Your task to perform on an android device: What's on the menu at McDonalds? Image 0: 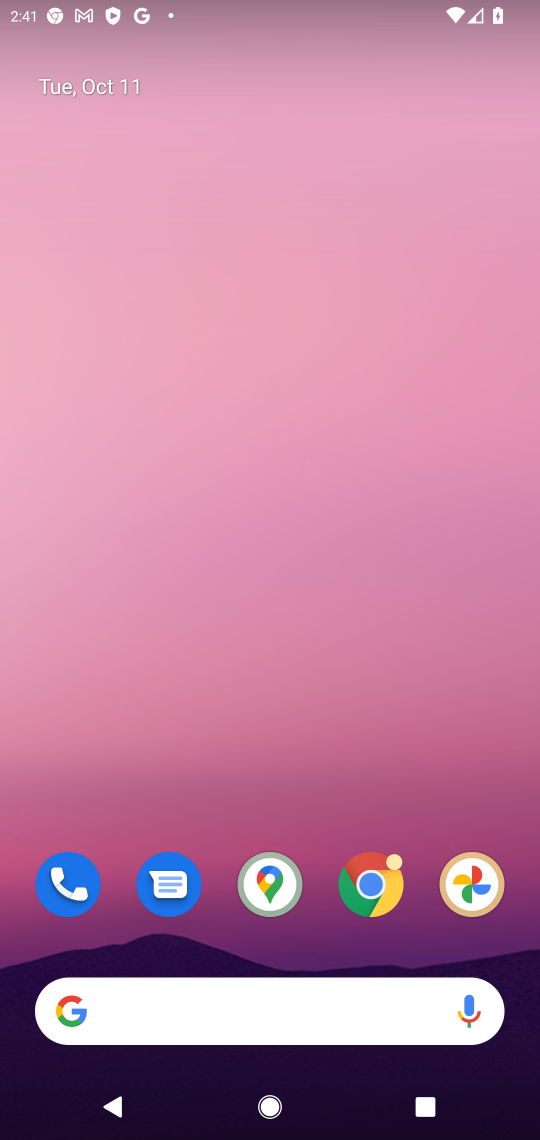
Step 0: click (374, 887)
Your task to perform on an android device: What's on the menu at McDonalds? Image 1: 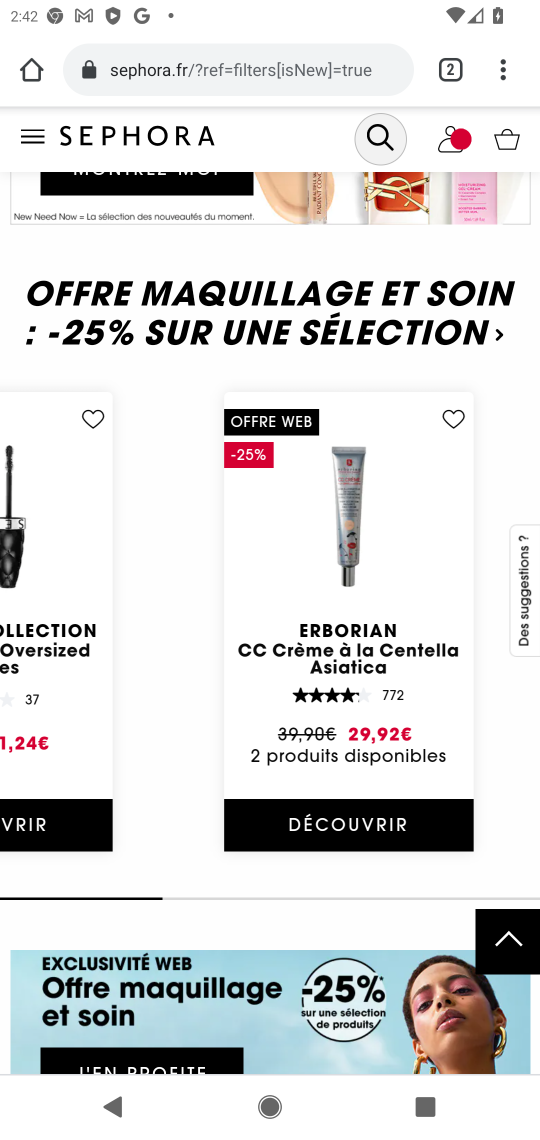
Step 1: click (295, 77)
Your task to perform on an android device: What's on the menu at McDonalds? Image 2: 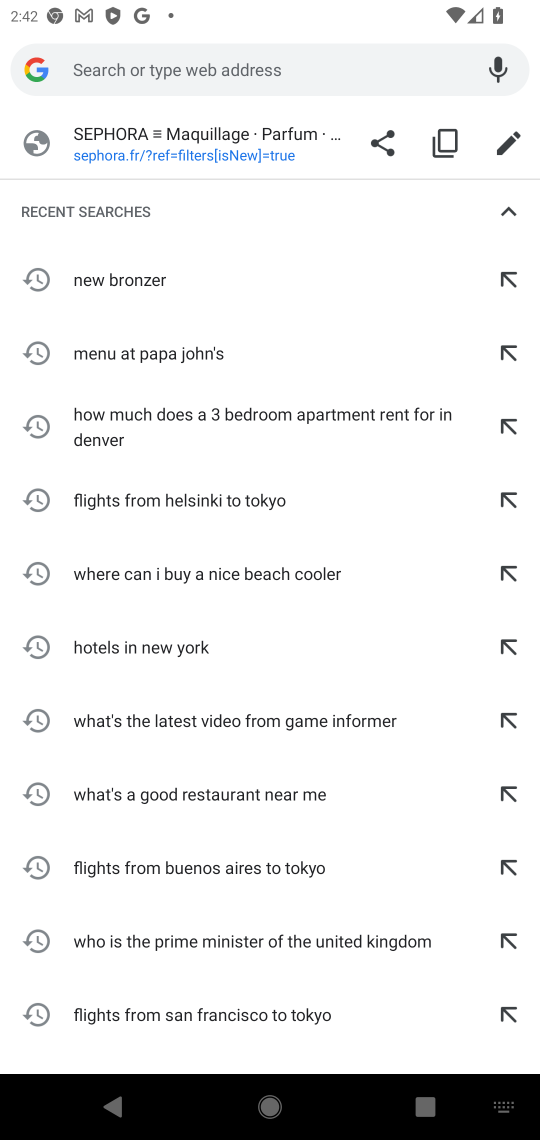
Step 2: type "menu at McDonalds"
Your task to perform on an android device: What's on the menu at McDonalds? Image 3: 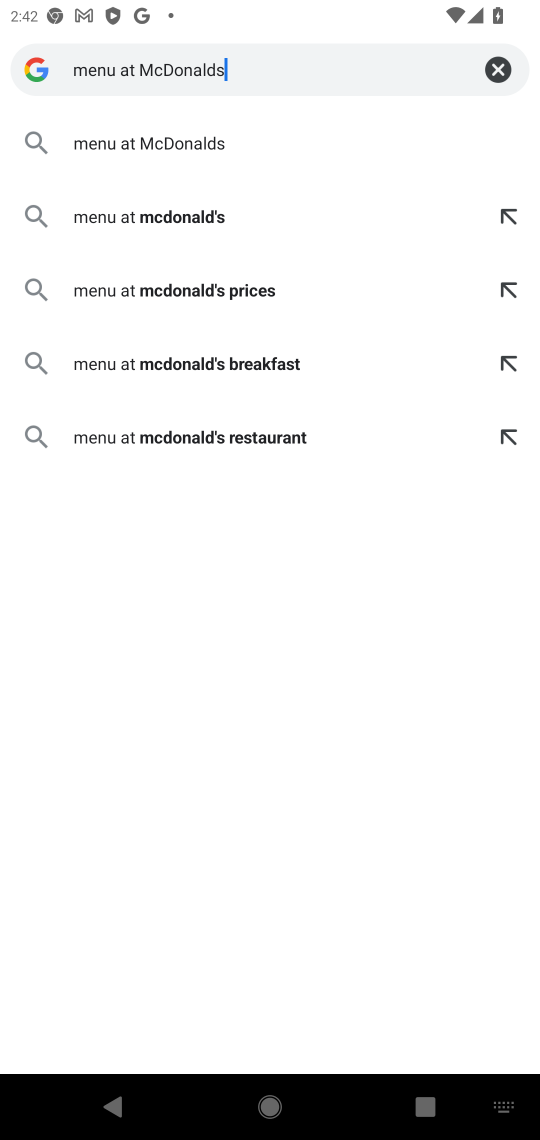
Step 3: click (209, 145)
Your task to perform on an android device: What's on the menu at McDonalds? Image 4: 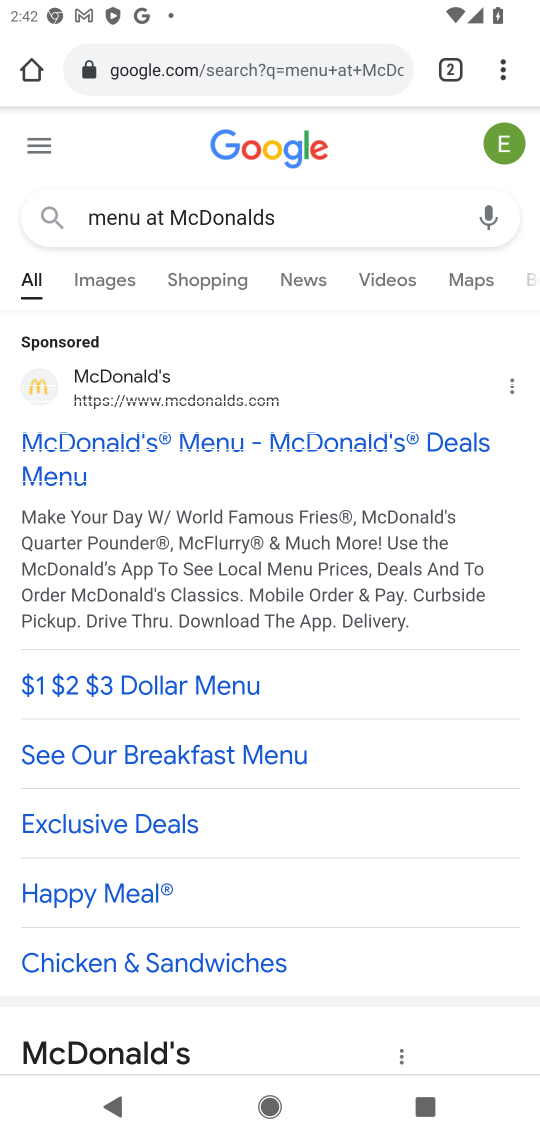
Step 4: drag from (269, 1017) to (481, 538)
Your task to perform on an android device: What's on the menu at McDonalds? Image 5: 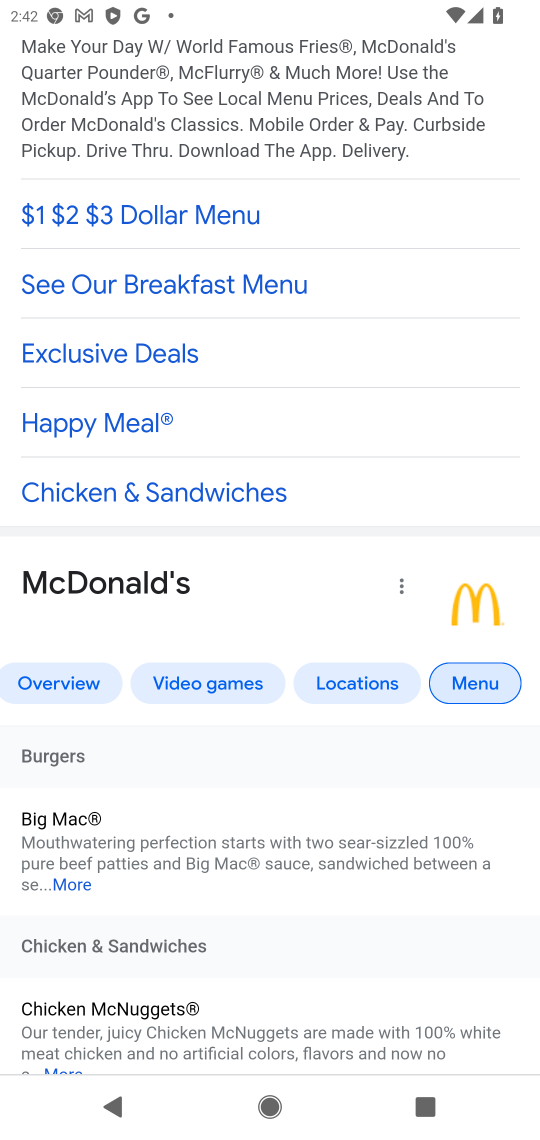
Step 5: drag from (197, 792) to (354, 488)
Your task to perform on an android device: What's on the menu at McDonalds? Image 6: 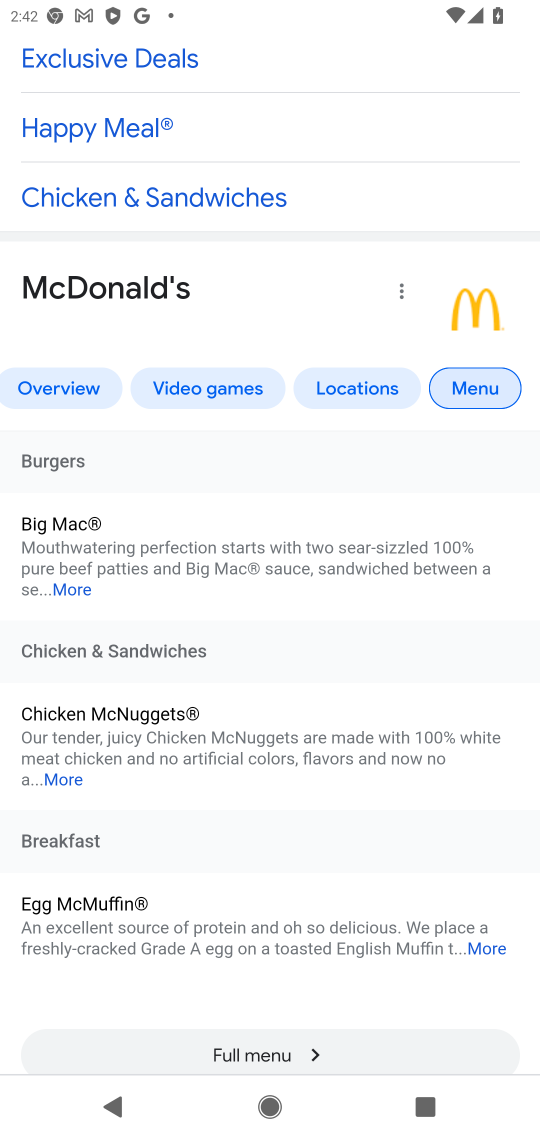
Step 6: click (232, 1057)
Your task to perform on an android device: What's on the menu at McDonalds? Image 7: 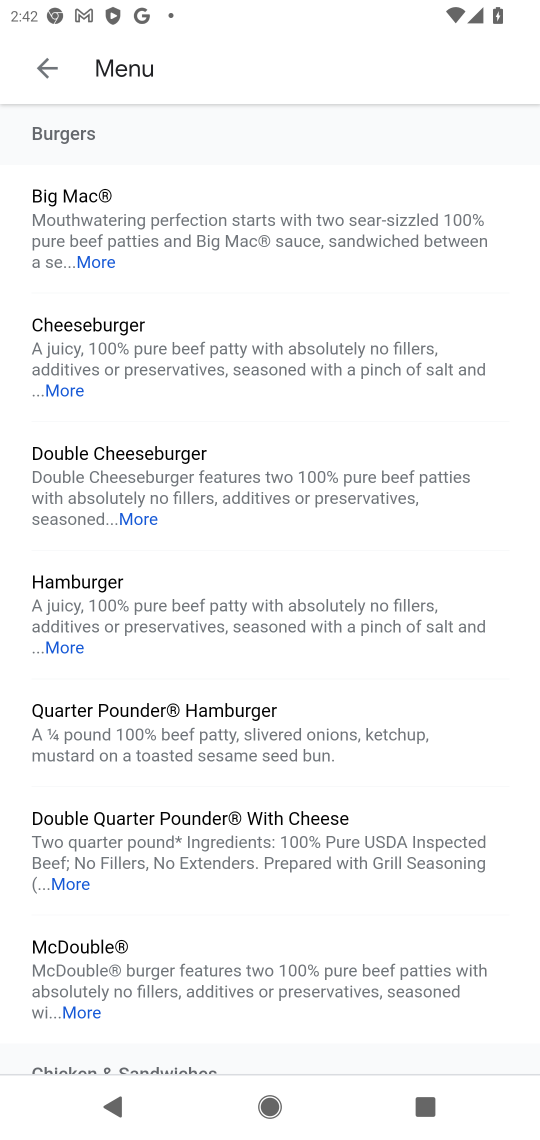
Step 7: task complete